Your task to perform on an android device: open app "Pandora - Music & Podcasts" (install if not already installed) Image 0: 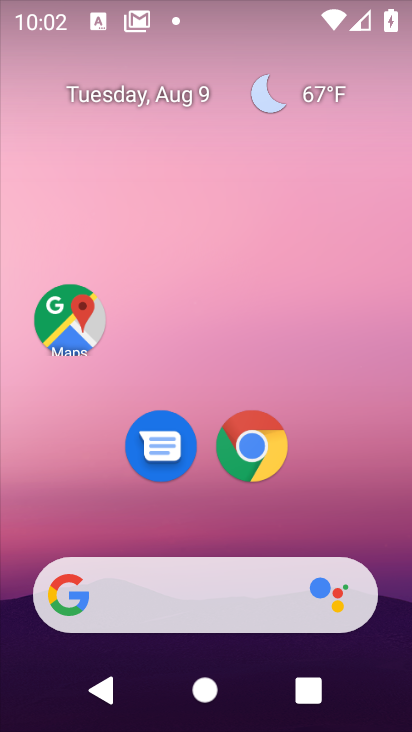
Step 0: drag from (214, 520) to (306, 17)
Your task to perform on an android device: open app "Pandora - Music & Podcasts" (install if not already installed) Image 1: 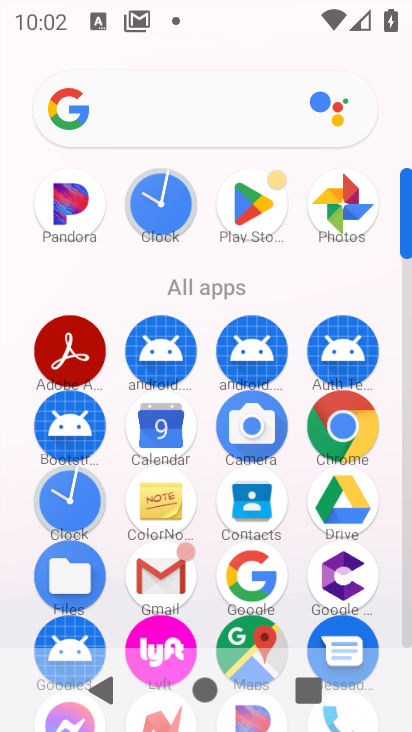
Step 1: click (245, 218)
Your task to perform on an android device: open app "Pandora - Music & Podcasts" (install if not already installed) Image 2: 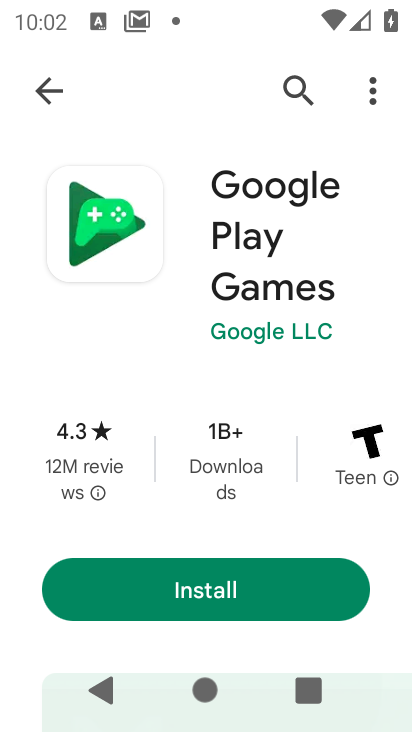
Step 2: click (292, 78)
Your task to perform on an android device: open app "Pandora - Music & Podcasts" (install if not already installed) Image 3: 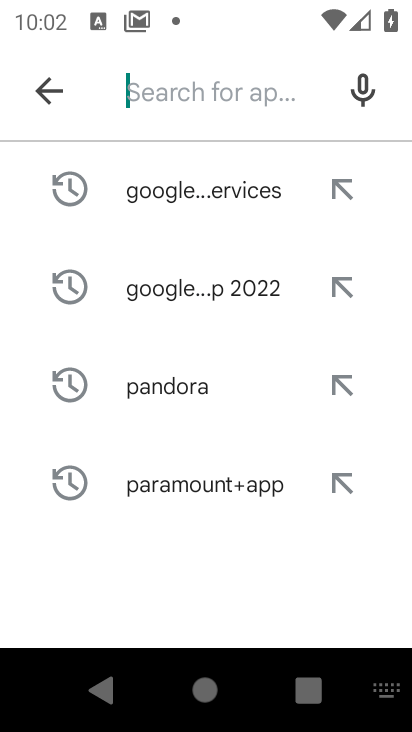
Step 3: click (188, 93)
Your task to perform on an android device: open app "Pandora - Music & Podcasts" (install if not already installed) Image 4: 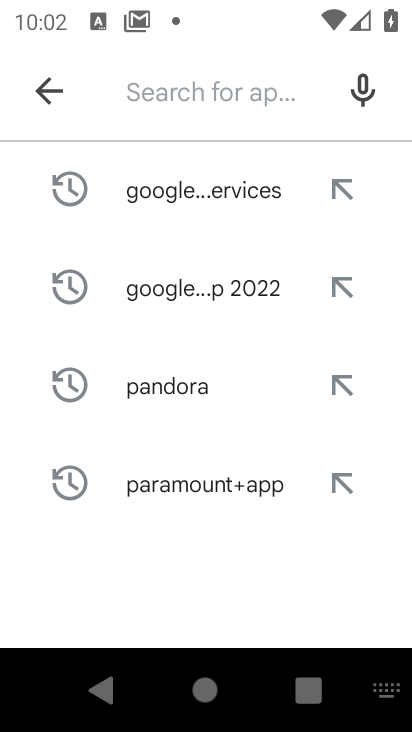
Step 4: type "pandora"
Your task to perform on an android device: open app "Pandora - Music & Podcasts" (install if not already installed) Image 5: 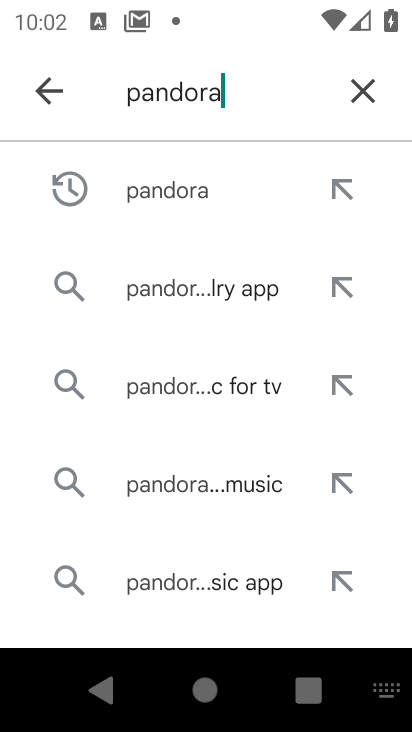
Step 5: click (224, 202)
Your task to perform on an android device: open app "Pandora - Music & Podcasts" (install if not already installed) Image 6: 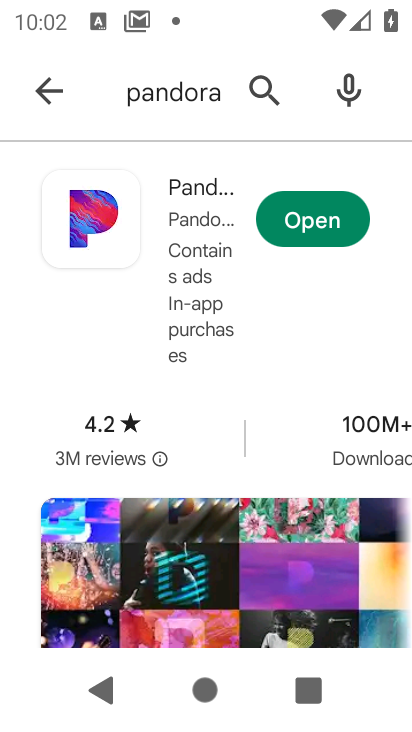
Step 6: click (330, 218)
Your task to perform on an android device: open app "Pandora - Music & Podcasts" (install if not already installed) Image 7: 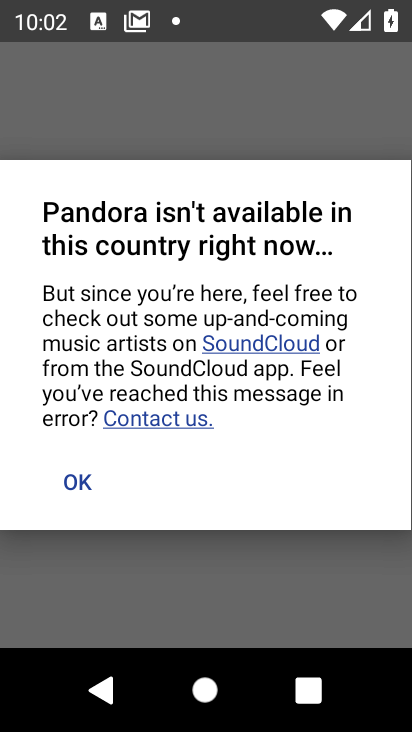
Step 7: click (67, 482)
Your task to perform on an android device: open app "Pandora - Music & Podcasts" (install if not already installed) Image 8: 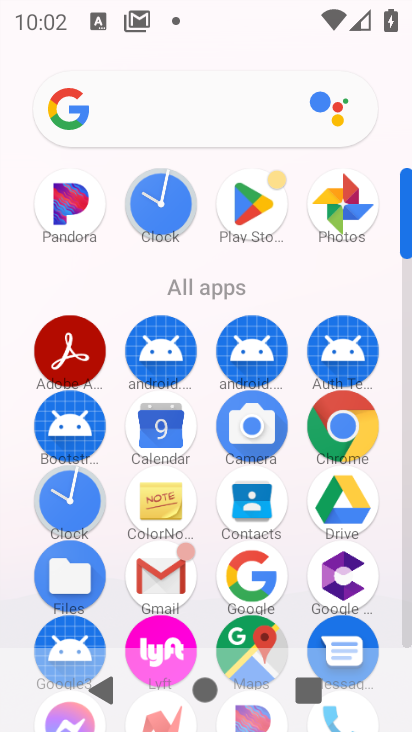
Step 8: task complete